Your task to perform on an android device: Open Amazon Image 0: 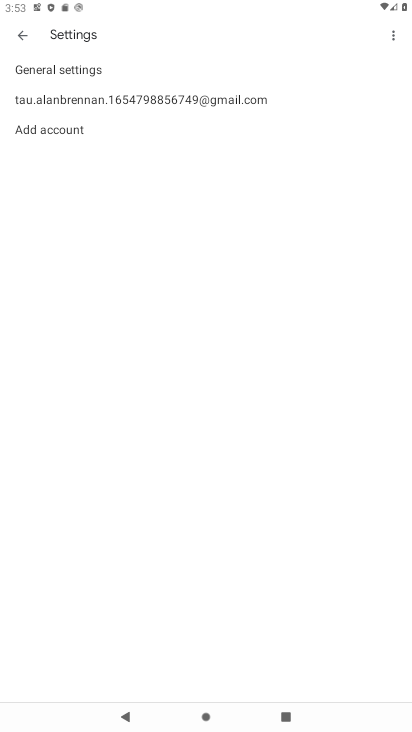
Step 0: press home button
Your task to perform on an android device: Open Amazon Image 1: 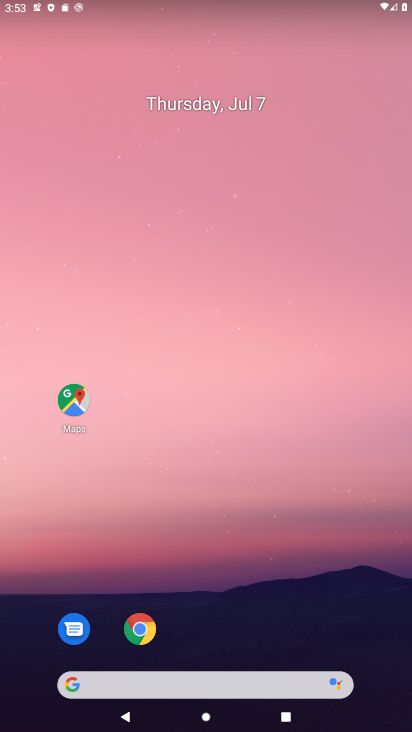
Step 1: drag from (235, 609) to (233, 176)
Your task to perform on an android device: Open Amazon Image 2: 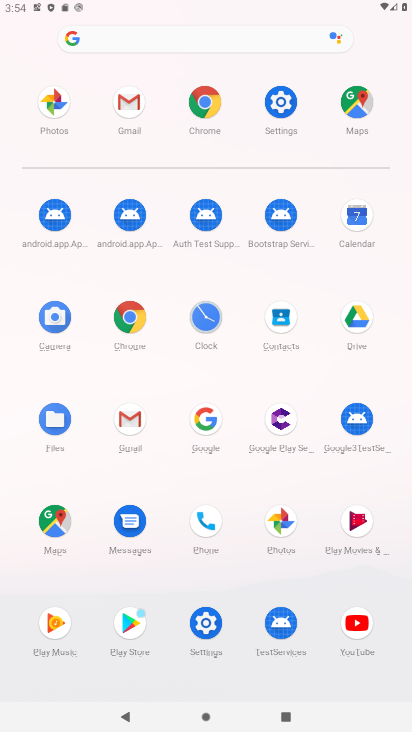
Step 2: click (128, 91)
Your task to perform on an android device: Open Amazon Image 3: 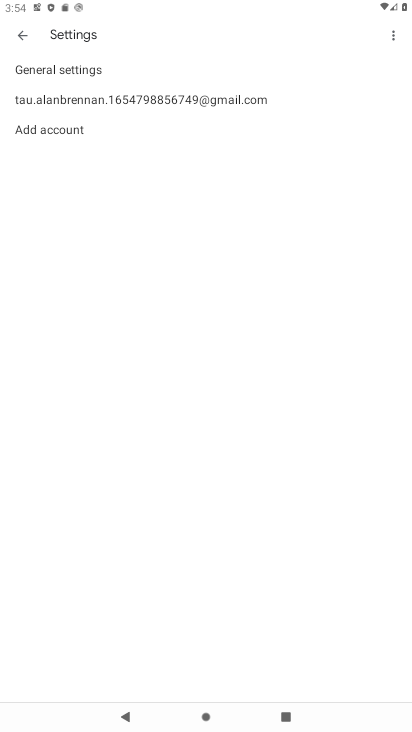
Step 3: press home button
Your task to perform on an android device: Open Amazon Image 4: 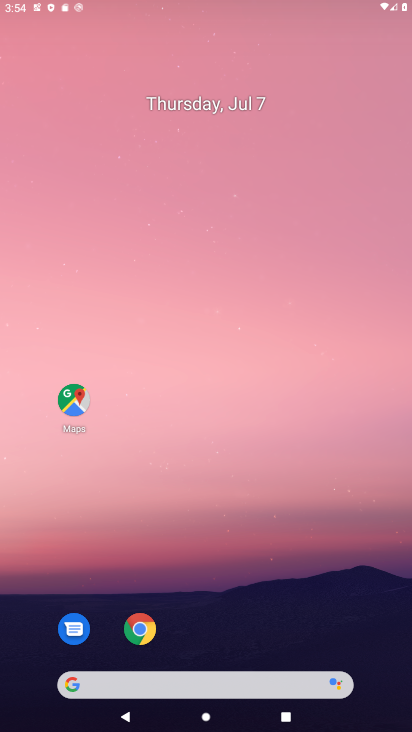
Step 4: drag from (252, 591) to (240, 234)
Your task to perform on an android device: Open Amazon Image 5: 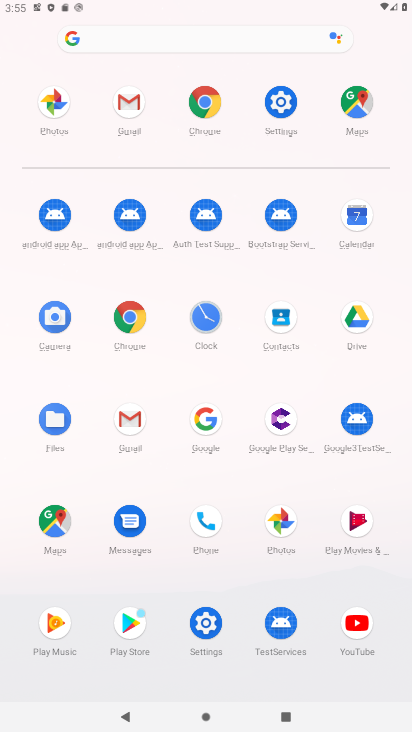
Step 5: click (210, 103)
Your task to perform on an android device: Open Amazon Image 6: 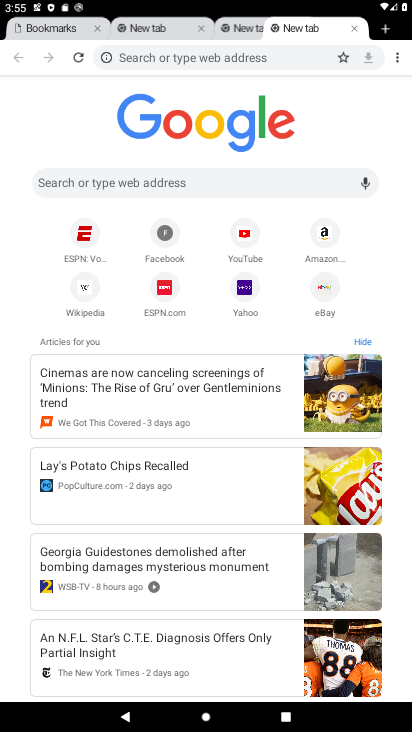
Step 6: click (320, 234)
Your task to perform on an android device: Open Amazon Image 7: 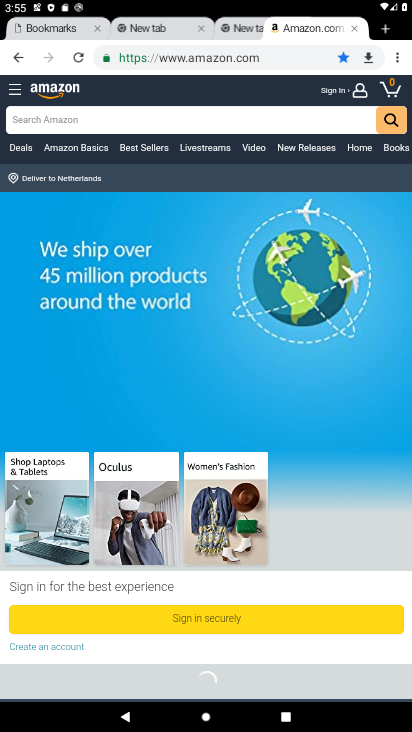
Step 7: task complete